Your task to perform on an android device: Open Google Maps Image 0: 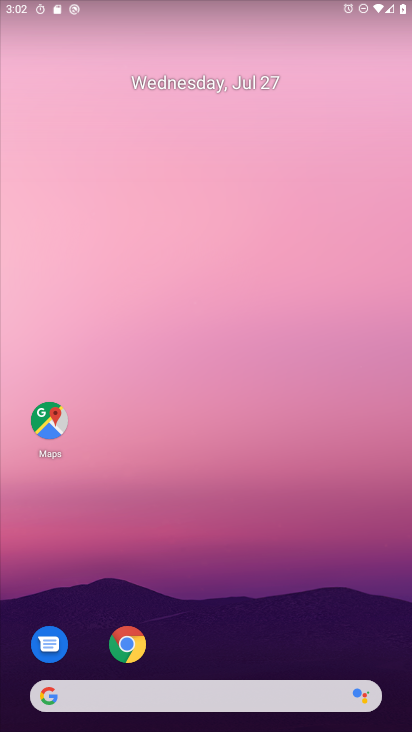
Step 0: drag from (156, 659) to (195, 167)
Your task to perform on an android device: Open Google Maps Image 1: 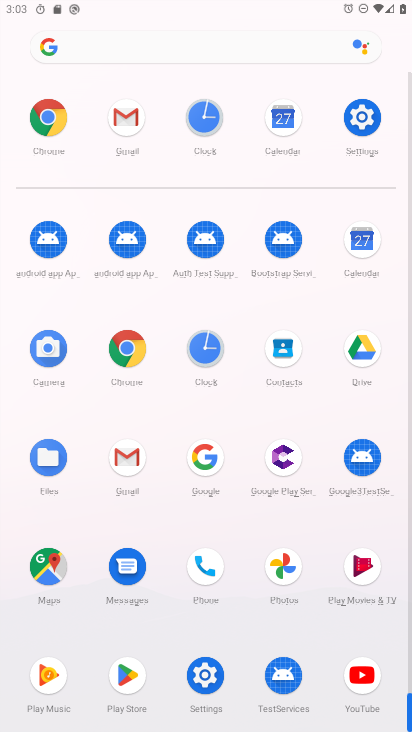
Step 1: click (43, 562)
Your task to perform on an android device: Open Google Maps Image 2: 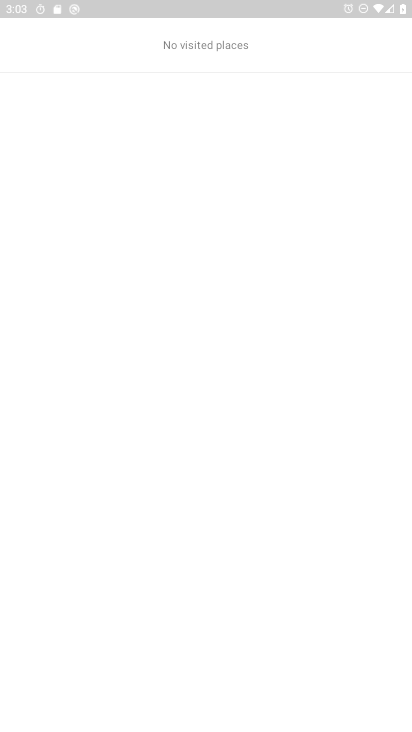
Step 2: task complete